Your task to perform on an android device: clear all cookies in the chrome app Image 0: 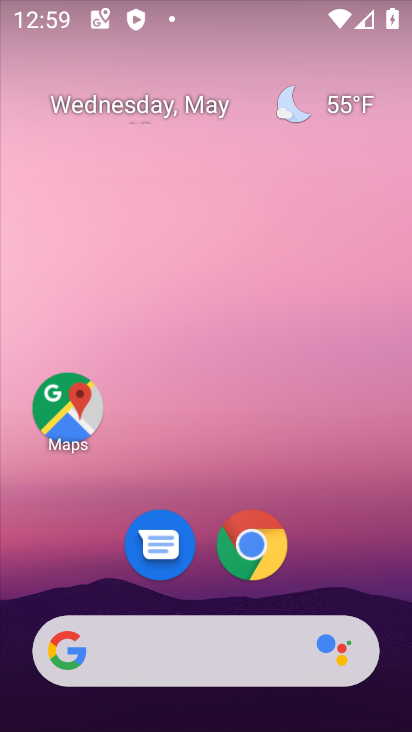
Step 0: click (271, 525)
Your task to perform on an android device: clear all cookies in the chrome app Image 1: 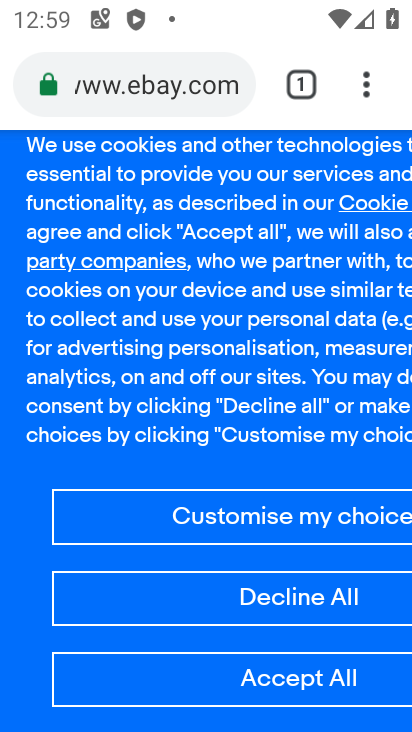
Step 1: click (363, 97)
Your task to perform on an android device: clear all cookies in the chrome app Image 2: 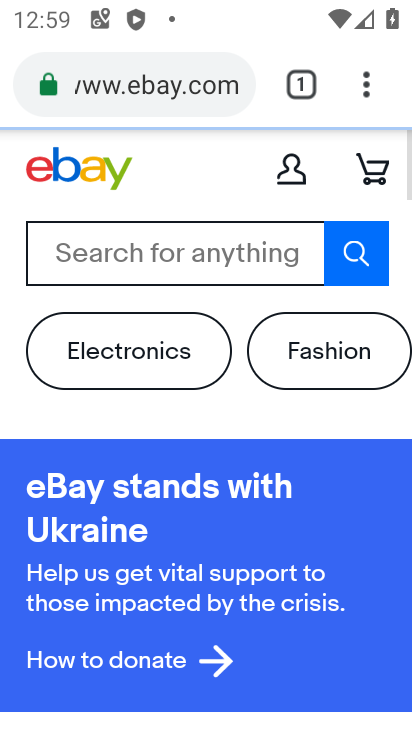
Step 2: click (362, 99)
Your task to perform on an android device: clear all cookies in the chrome app Image 3: 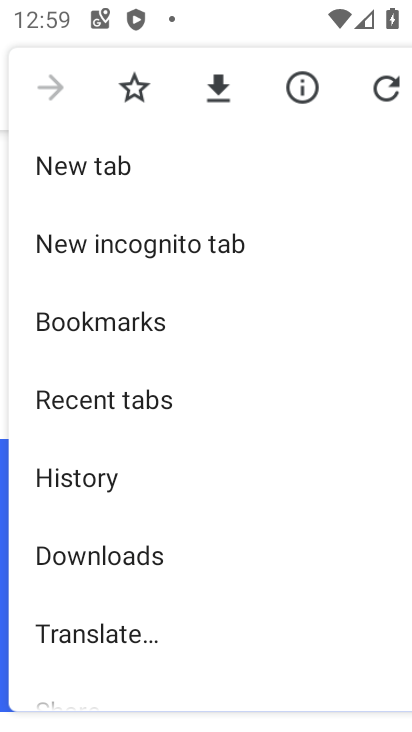
Step 3: drag from (199, 592) to (207, 143)
Your task to perform on an android device: clear all cookies in the chrome app Image 4: 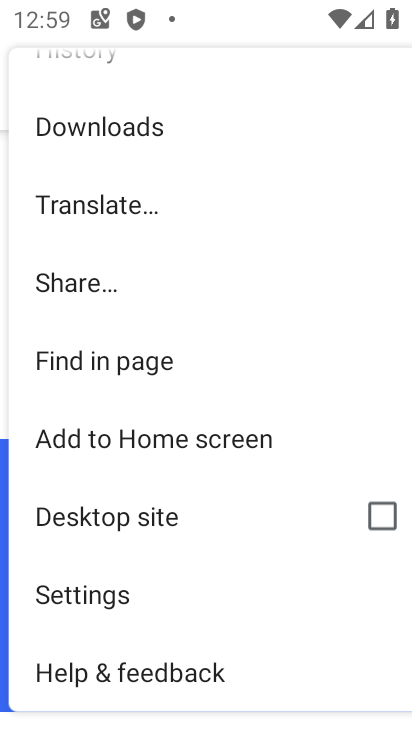
Step 4: click (149, 589)
Your task to perform on an android device: clear all cookies in the chrome app Image 5: 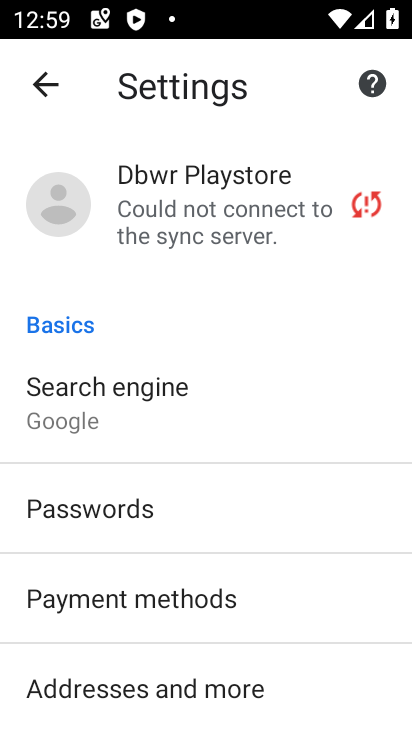
Step 5: drag from (253, 546) to (251, 370)
Your task to perform on an android device: clear all cookies in the chrome app Image 6: 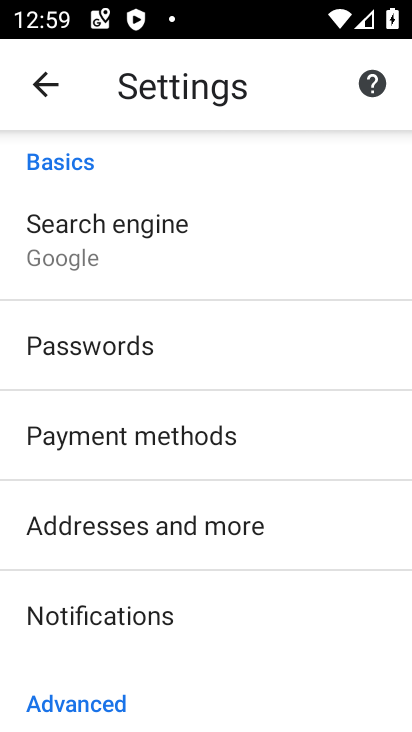
Step 6: drag from (200, 599) to (197, 271)
Your task to perform on an android device: clear all cookies in the chrome app Image 7: 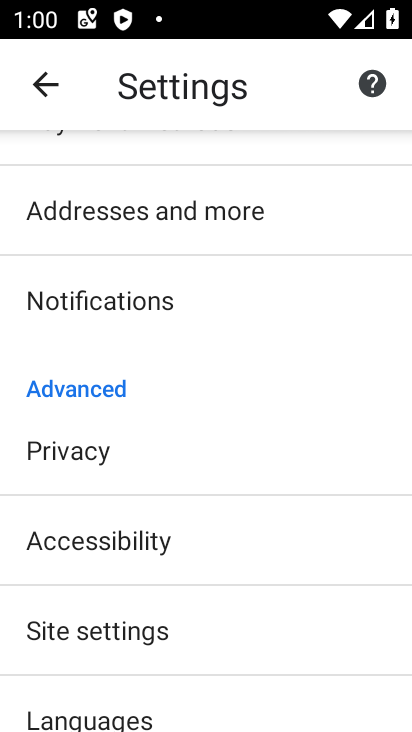
Step 7: click (161, 466)
Your task to perform on an android device: clear all cookies in the chrome app Image 8: 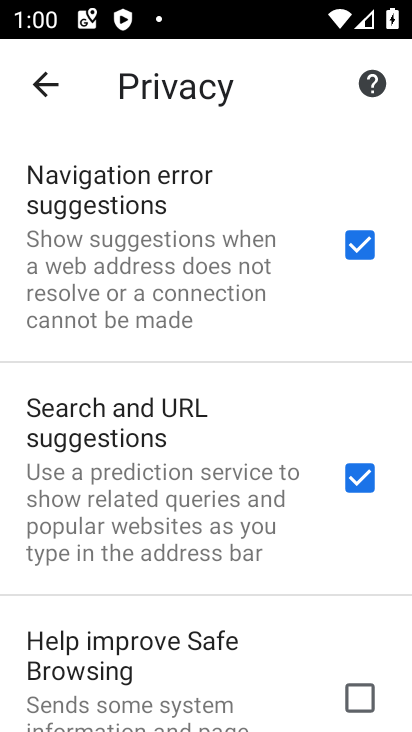
Step 8: drag from (238, 598) to (234, 115)
Your task to perform on an android device: clear all cookies in the chrome app Image 9: 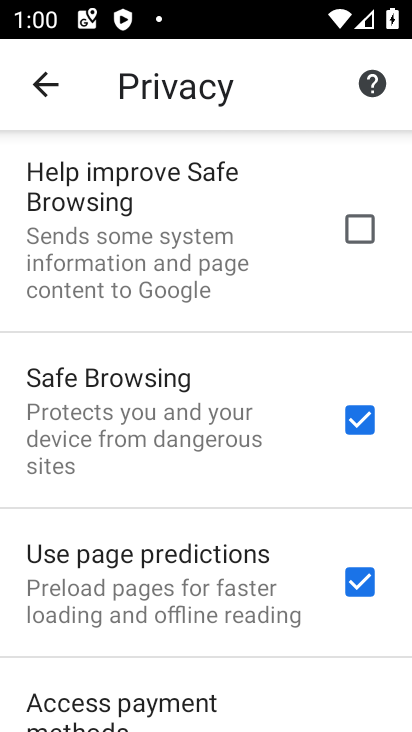
Step 9: drag from (196, 669) to (185, 102)
Your task to perform on an android device: clear all cookies in the chrome app Image 10: 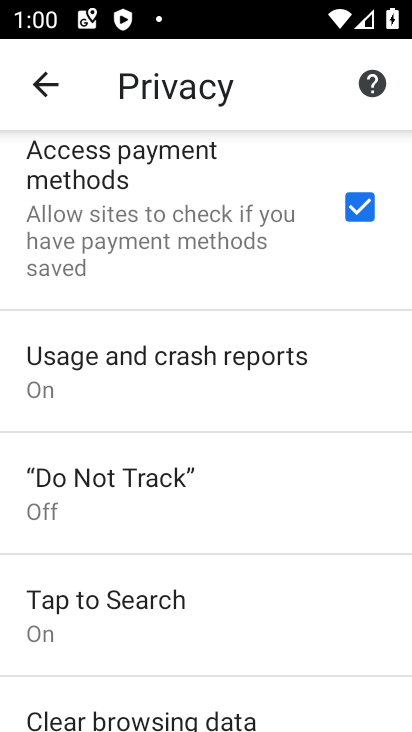
Step 10: drag from (161, 672) to (227, 202)
Your task to perform on an android device: clear all cookies in the chrome app Image 11: 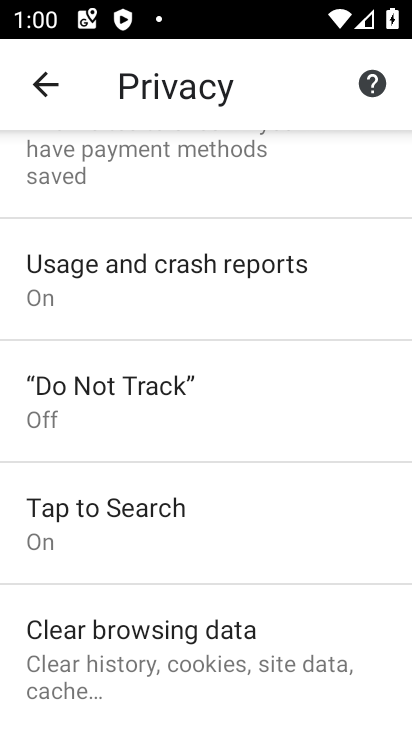
Step 11: click (215, 661)
Your task to perform on an android device: clear all cookies in the chrome app Image 12: 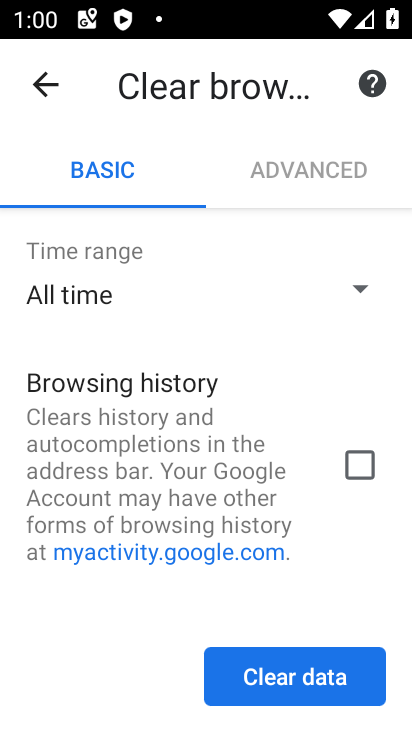
Step 12: drag from (313, 497) to (318, 237)
Your task to perform on an android device: clear all cookies in the chrome app Image 13: 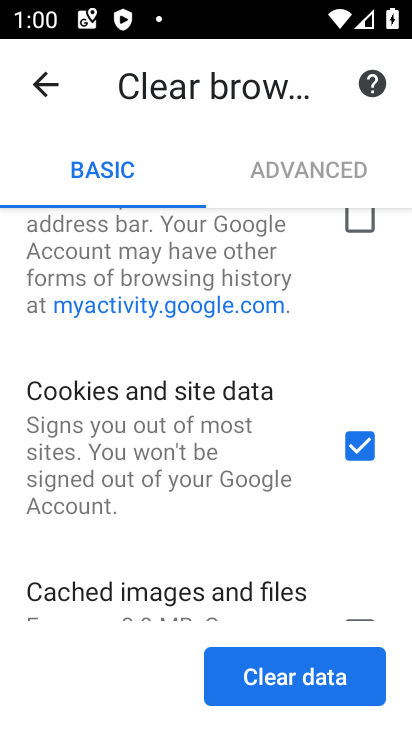
Step 13: drag from (309, 495) to (281, 252)
Your task to perform on an android device: clear all cookies in the chrome app Image 14: 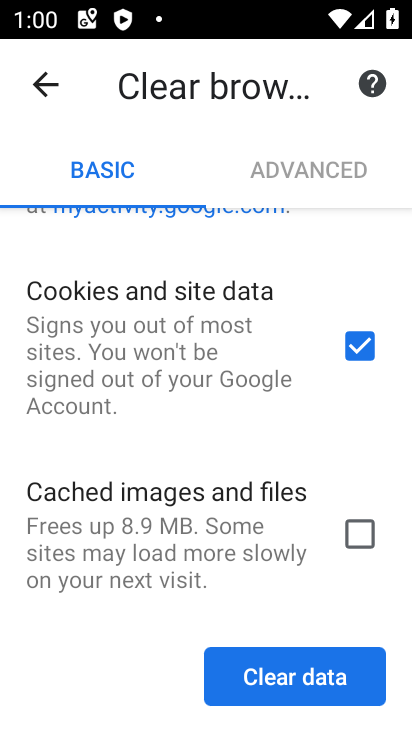
Step 14: click (287, 646)
Your task to perform on an android device: clear all cookies in the chrome app Image 15: 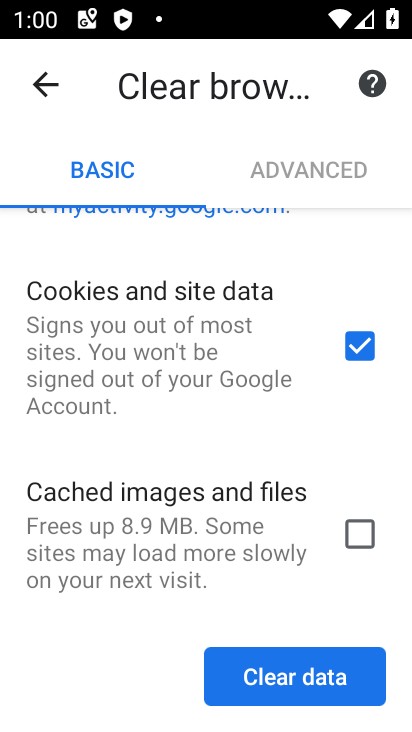
Step 15: click (286, 663)
Your task to perform on an android device: clear all cookies in the chrome app Image 16: 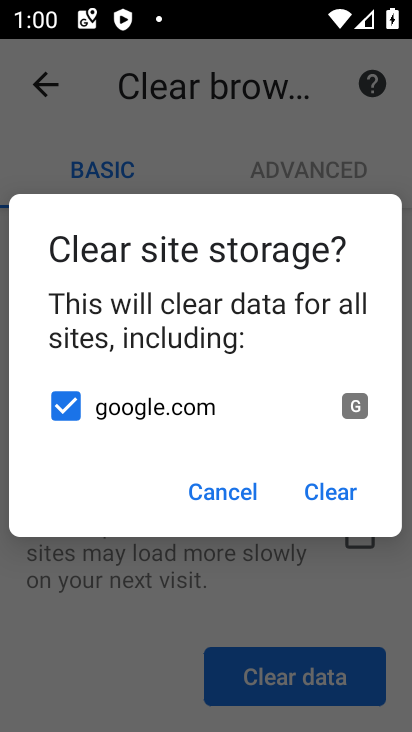
Step 16: click (330, 495)
Your task to perform on an android device: clear all cookies in the chrome app Image 17: 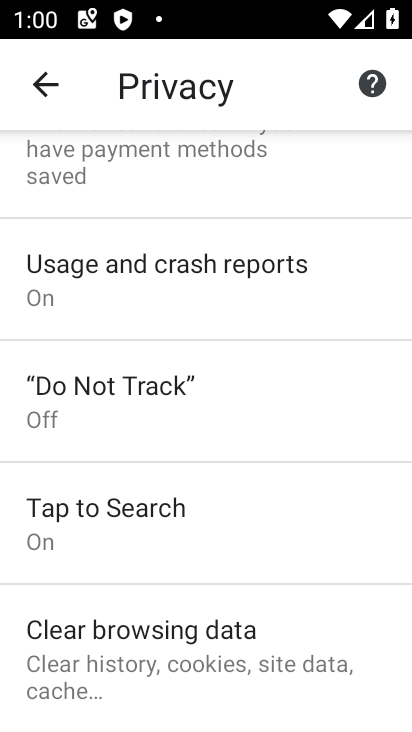
Step 17: task complete